Your task to perform on an android device: find snoozed emails in the gmail app Image 0: 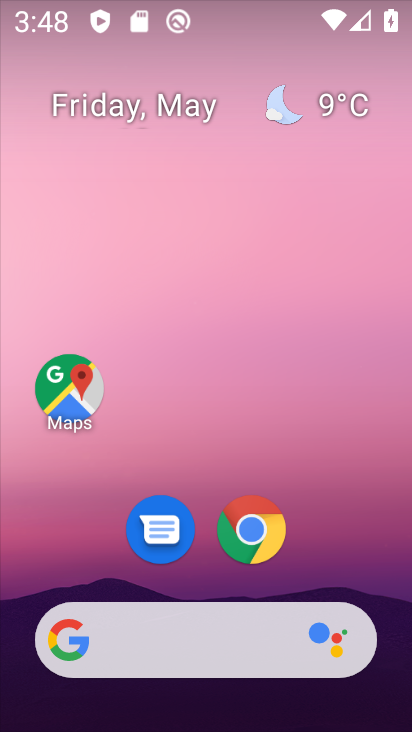
Step 0: drag from (47, 570) to (183, 175)
Your task to perform on an android device: find snoozed emails in the gmail app Image 1: 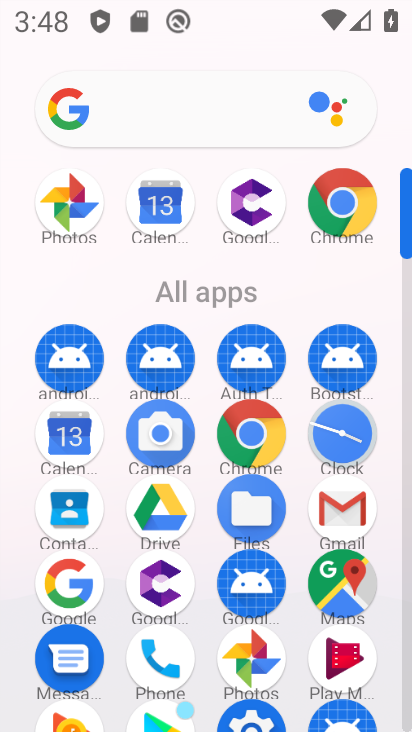
Step 1: click (345, 517)
Your task to perform on an android device: find snoozed emails in the gmail app Image 2: 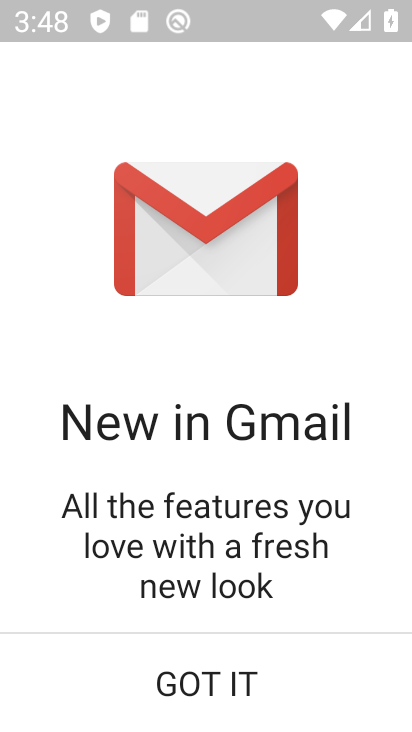
Step 2: click (247, 691)
Your task to perform on an android device: find snoozed emails in the gmail app Image 3: 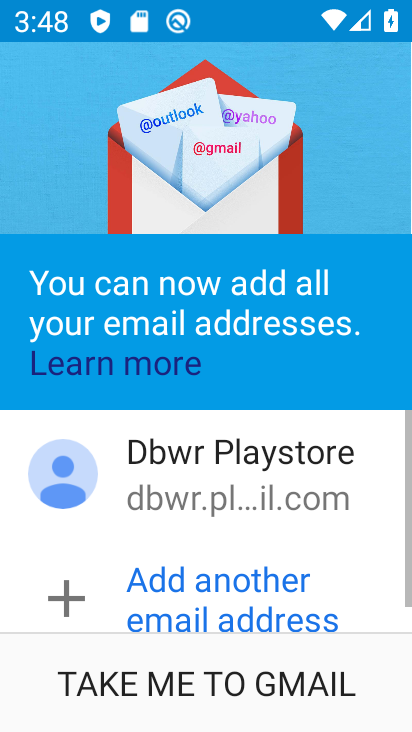
Step 3: click (247, 690)
Your task to perform on an android device: find snoozed emails in the gmail app Image 4: 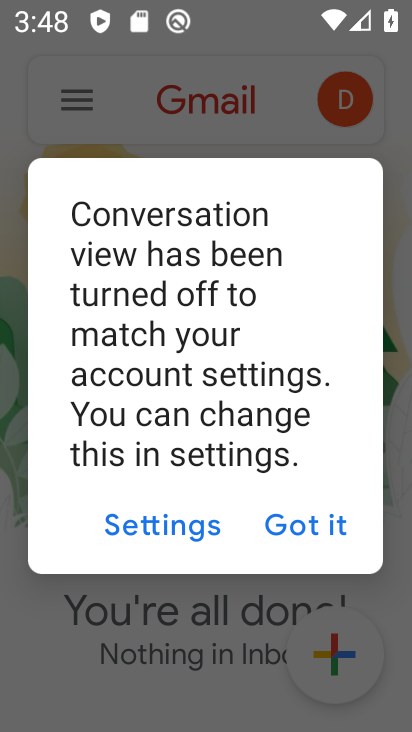
Step 4: click (326, 510)
Your task to perform on an android device: find snoozed emails in the gmail app Image 5: 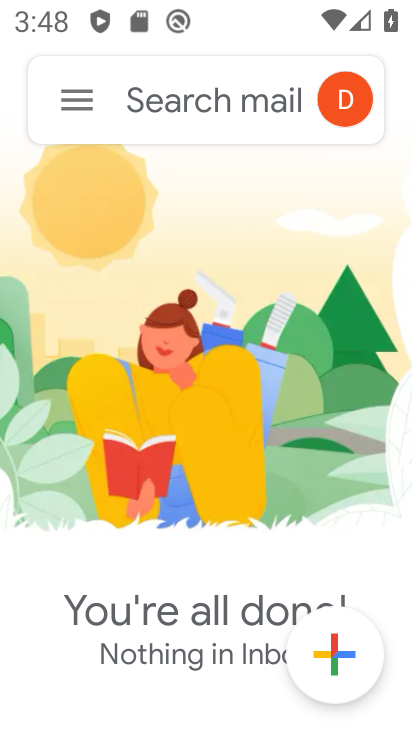
Step 5: click (81, 99)
Your task to perform on an android device: find snoozed emails in the gmail app Image 6: 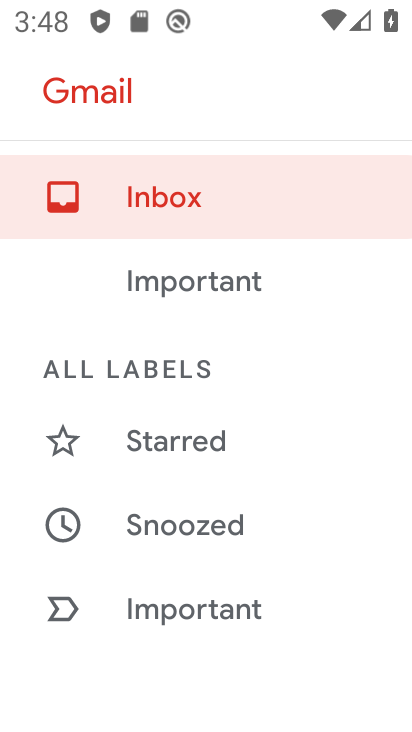
Step 6: drag from (135, 549) to (267, 274)
Your task to perform on an android device: find snoozed emails in the gmail app Image 7: 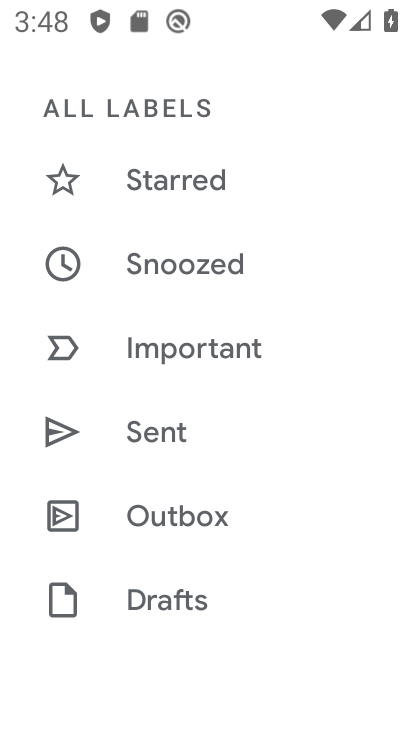
Step 7: drag from (250, 559) to (306, 414)
Your task to perform on an android device: find snoozed emails in the gmail app Image 8: 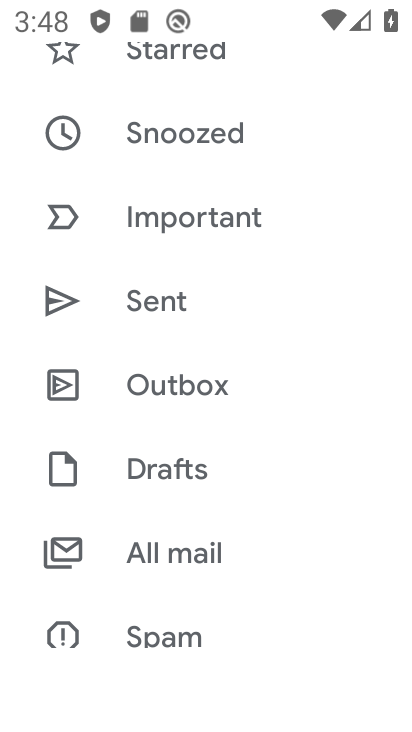
Step 8: click (238, 149)
Your task to perform on an android device: find snoozed emails in the gmail app Image 9: 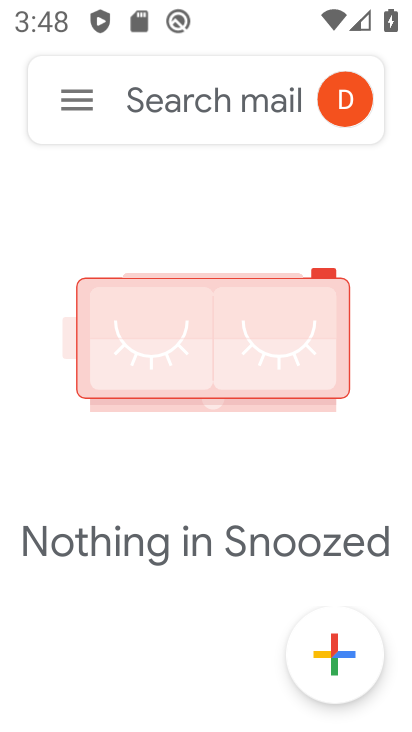
Step 9: task complete